Your task to perform on an android device: turn off notifications settings in the gmail app Image 0: 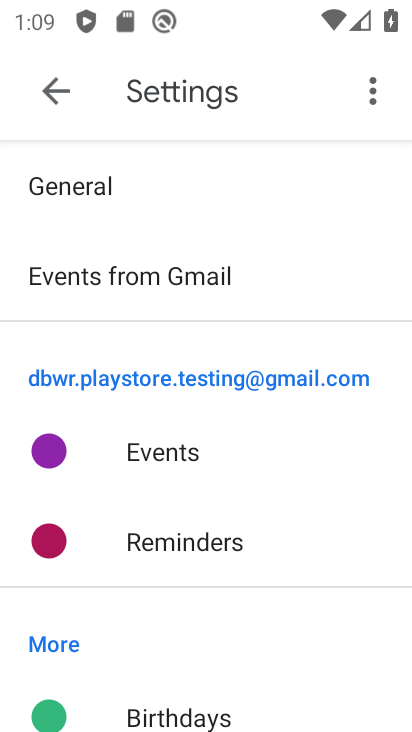
Step 0: press home button
Your task to perform on an android device: turn off notifications settings in the gmail app Image 1: 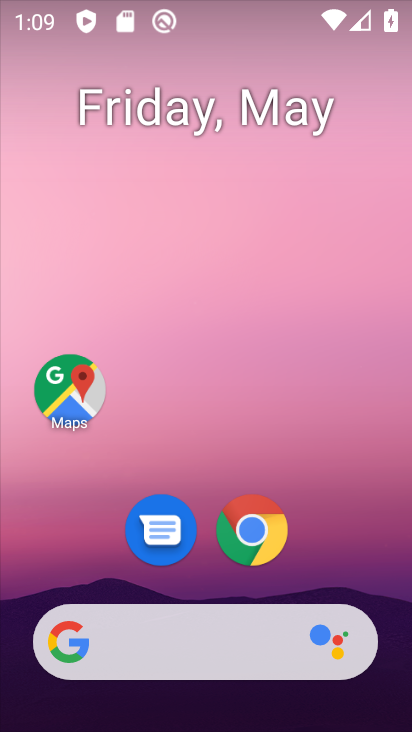
Step 1: drag from (347, 558) to (340, 10)
Your task to perform on an android device: turn off notifications settings in the gmail app Image 2: 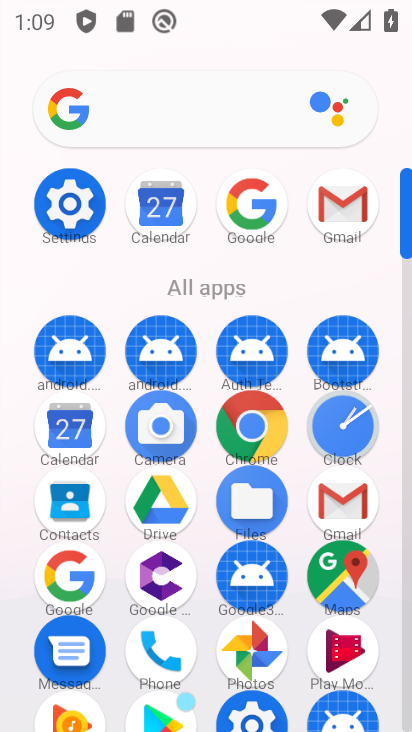
Step 2: click (348, 504)
Your task to perform on an android device: turn off notifications settings in the gmail app Image 3: 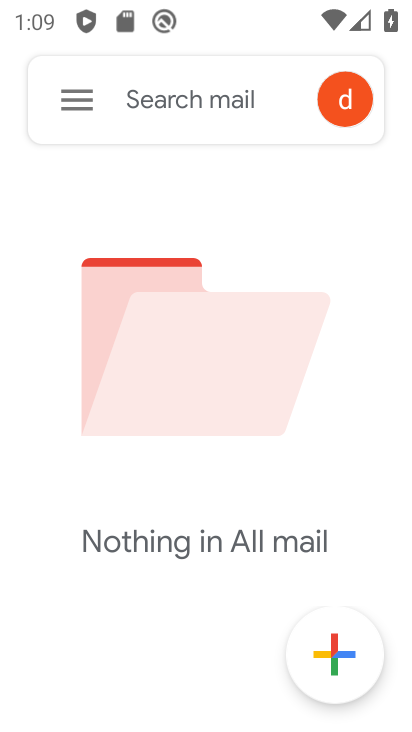
Step 3: click (83, 87)
Your task to perform on an android device: turn off notifications settings in the gmail app Image 4: 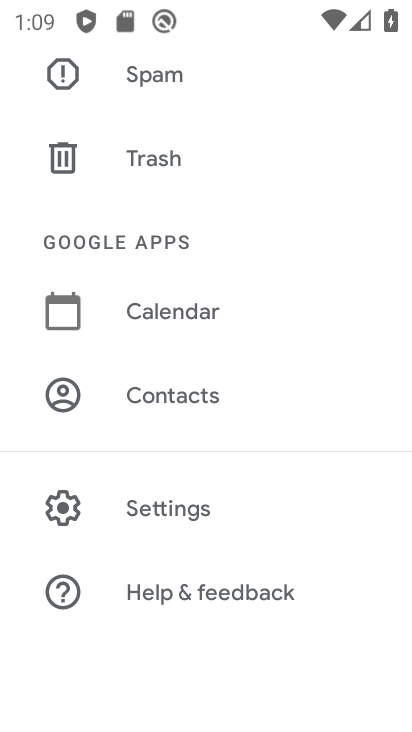
Step 4: click (118, 495)
Your task to perform on an android device: turn off notifications settings in the gmail app Image 5: 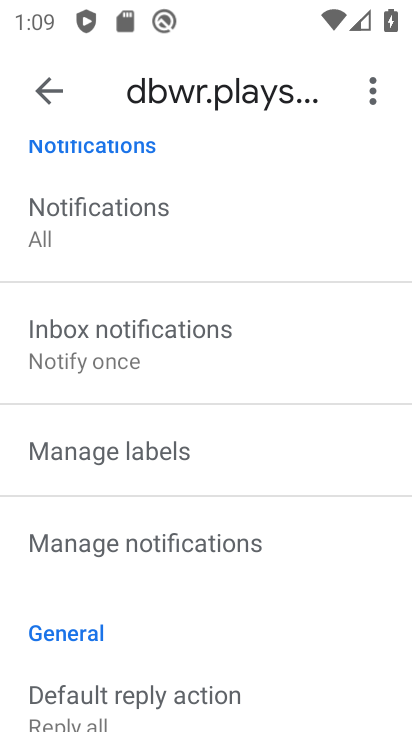
Step 5: click (82, 535)
Your task to perform on an android device: turn off notifications settings in the gmail app Image 6: 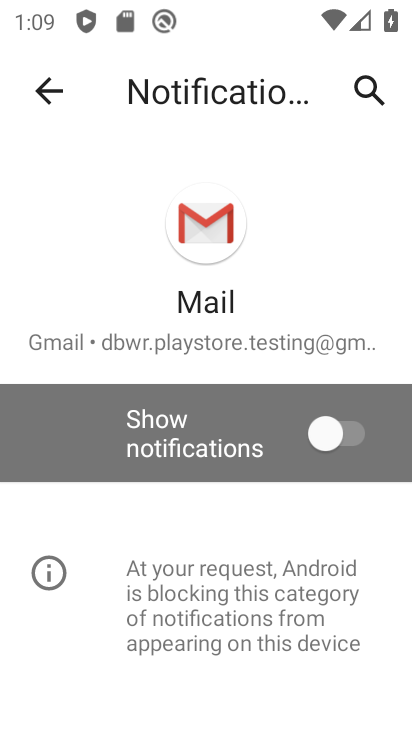
Step 6: task complete